Your task to perform on an android device: Open wifi settings Image 0: 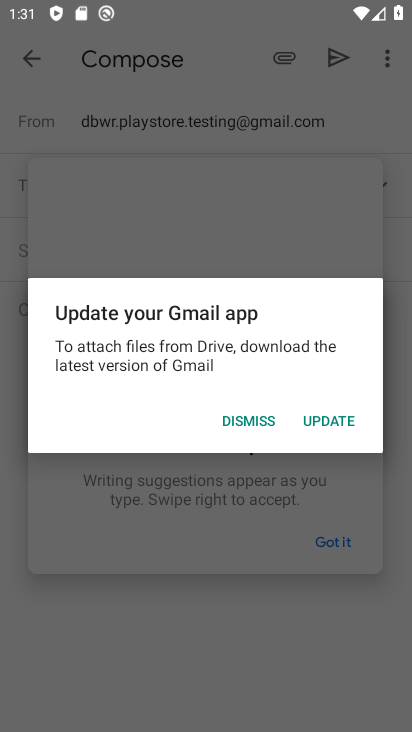
Step 0: press home button
Your task to perform on an android device: Open wifi settings Image 1: 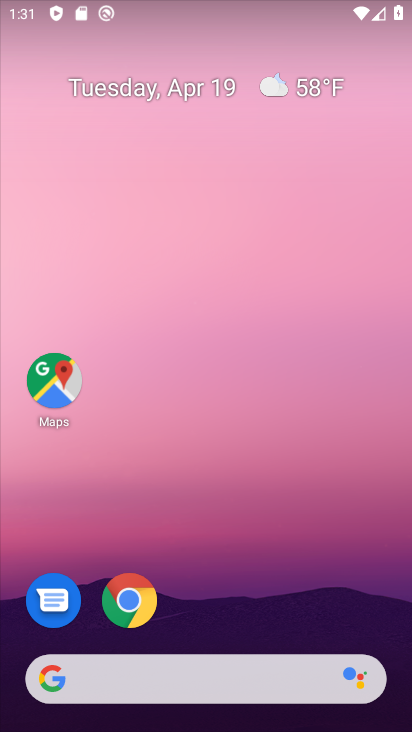
Step 1: drag from (162, 609) to (355, 0)
Your task to perform on an android device: Open wifi settings Image 2: 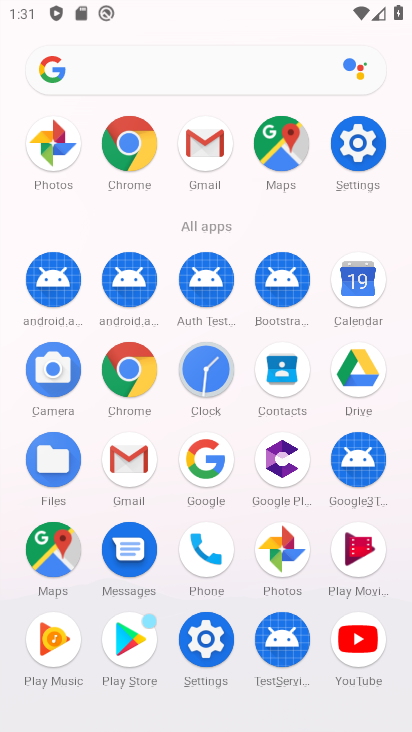
Step 2: click (350, 153)
Your task to perform on an android device: Open wifi settings Image 3: 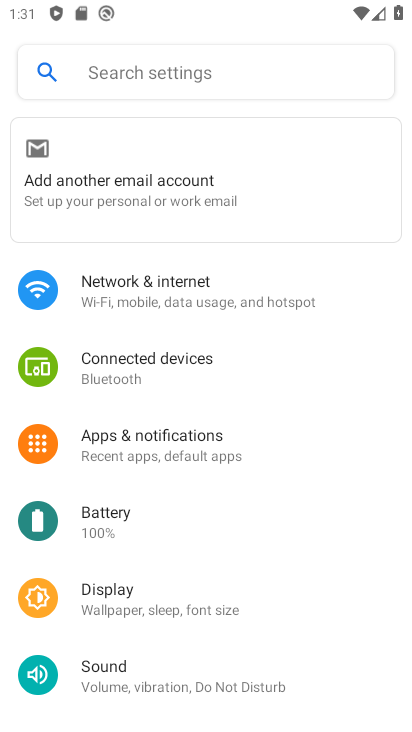
Step 3: click (138, 307)
Your task to perform on an android device: Open wifi settings Image 4: 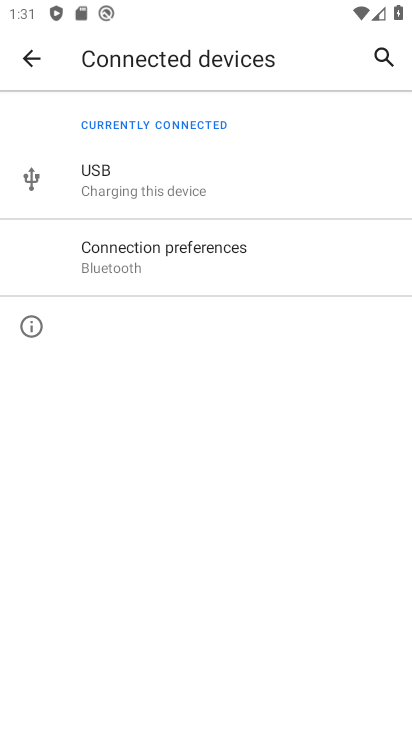
Step 4: task complete